Your task to perform on an android device: clear all cookies in the chrome app Image 0: 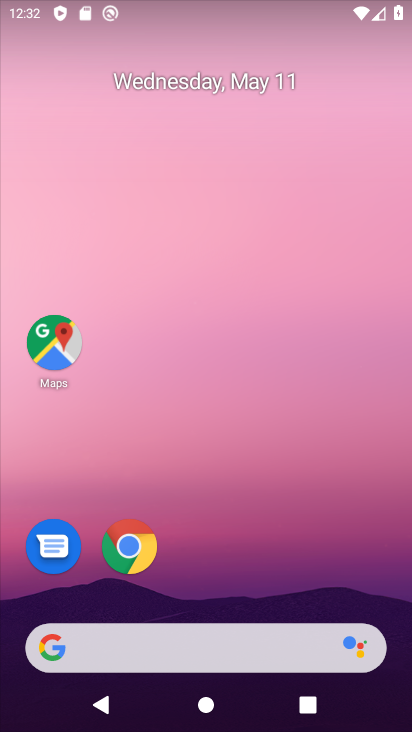
Step 0: drag from (267, 680) to (259, 286)
Your task to perform on an android device: clear all cookies in the chrome app Image 1: 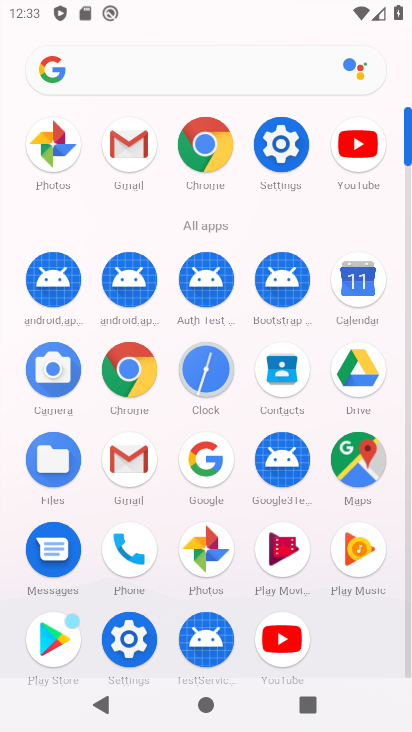
Step 1: click (200, 149)
Your task to perform on an android device: clear all cookies in the chrome app Image 2: 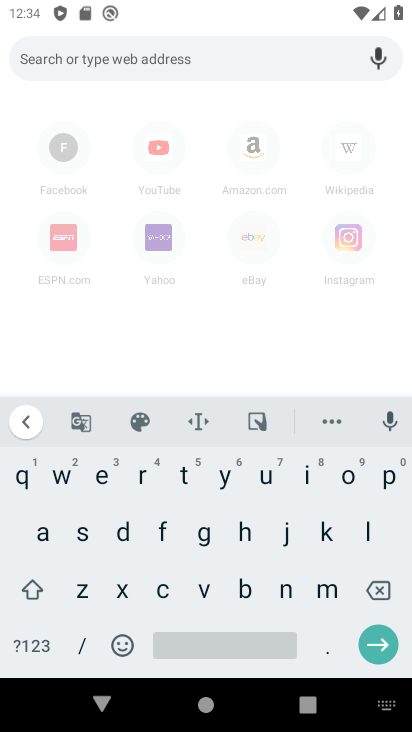
Step 2: press back button
Your task to perform on an android device: clear all cookies in the chrome app Image 3: 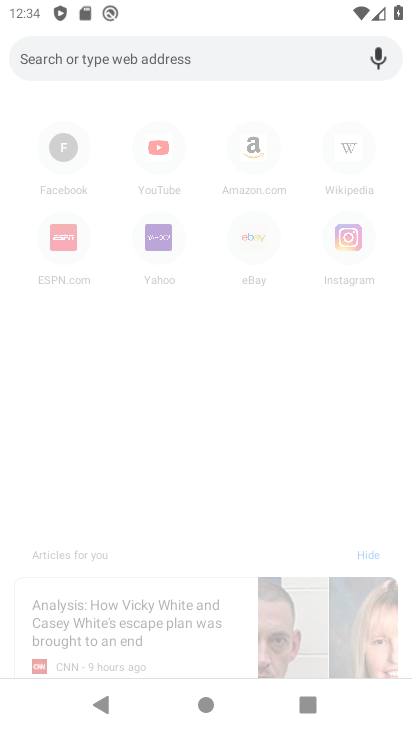
Step 3: press back button
Your task to perform on an android device: clear all cookies in the chrome app Image 4: 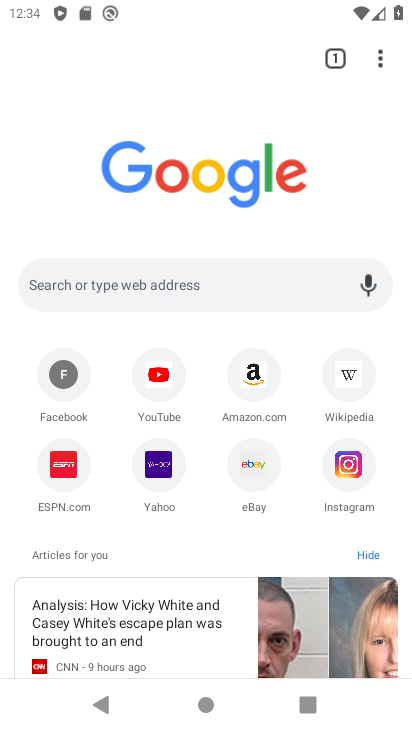
Step 4: click (382, 70)
Your task to perform on an android device: clear all cookies in the chrome app Image 5: 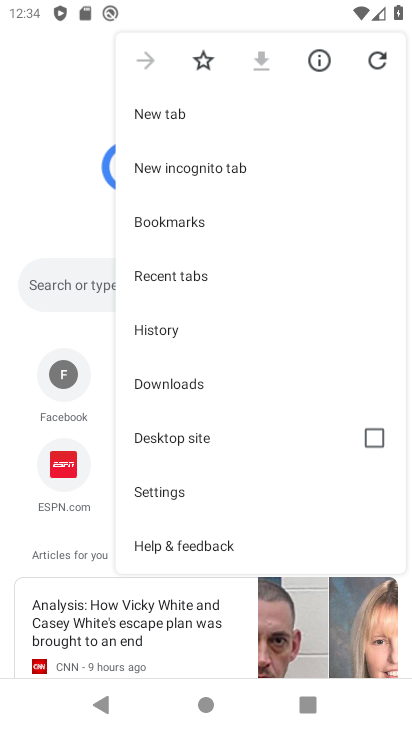
Step 5: click (157, 340)
Your task to perform on an android device: clear all cookies in the chrome app Image 6: 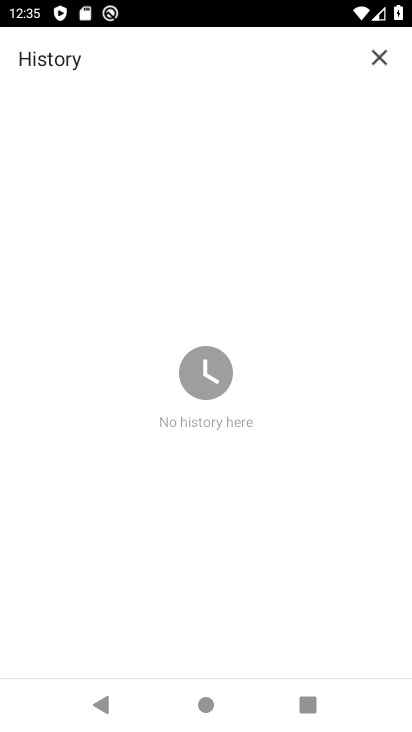
Step 6: task complete